Your task to perform on an android device: Go to accessibility settings Image 0: 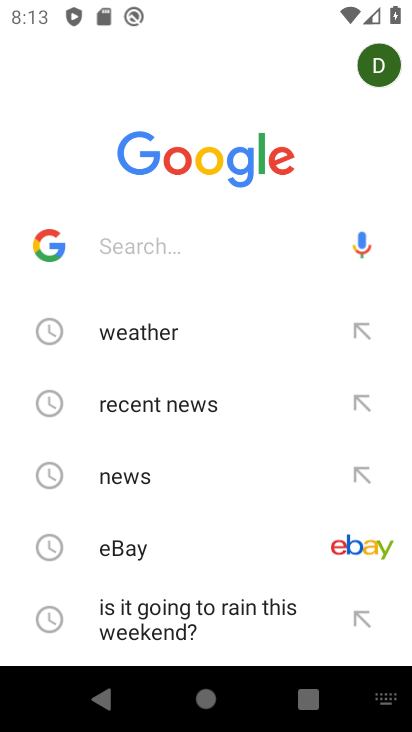
Step 0: press back button
Your task to perform on an android device: Go to accessibility settings Image 1: 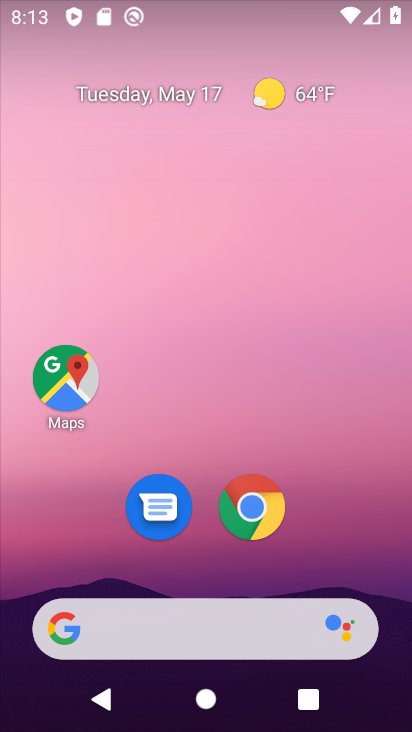
Step 1: drag from (332, 556) to (233, 95)
Your task to perform on an android device: Go to accessibility settings Image 2: 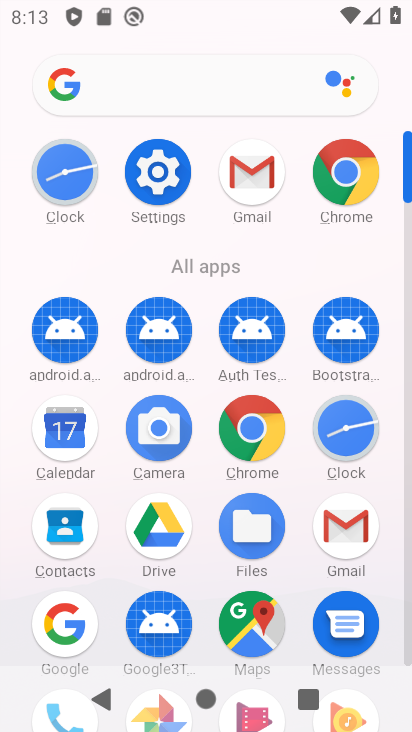
Step 2: drag from (212, 519) to (210, 296)
Your task to perform on an android device: Go to accessibility settings Image 3: 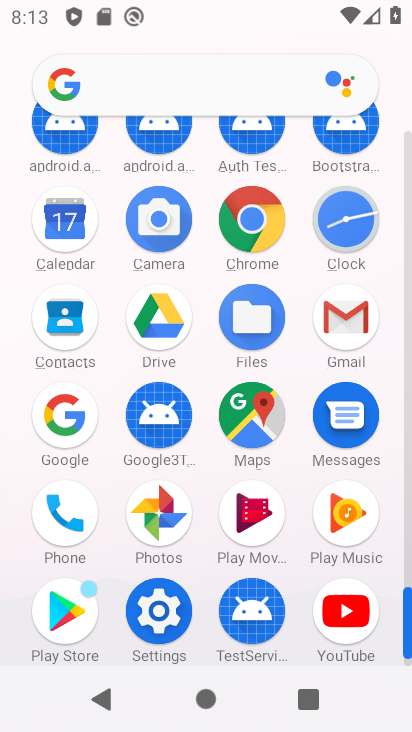
Step 3: click (157, 611)
Your task to perform on an android device: Go to accessibility settings Image 4: 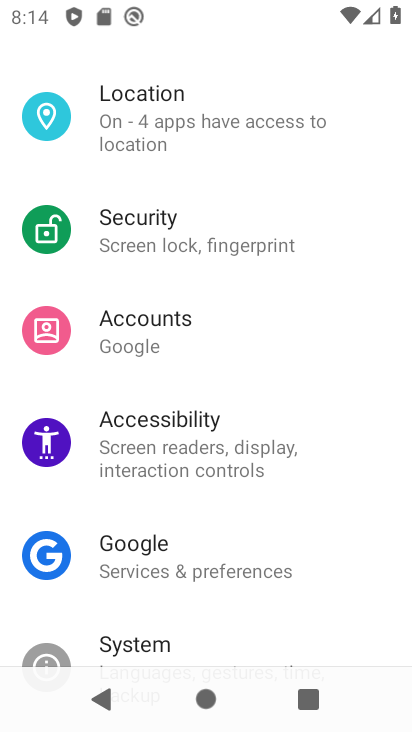
Step 4: click (164, 416)
Your task to perform on an android device: Go to accessibility settings Image 5: 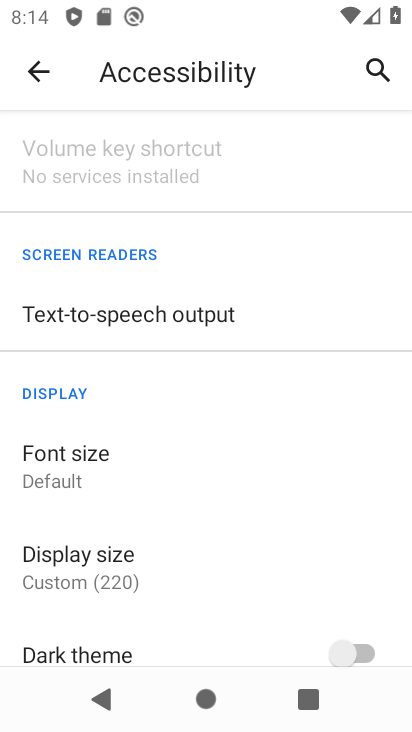
Step 5: task complete